Your task to perform on an android device: empty trash in the gmail app Image 0: 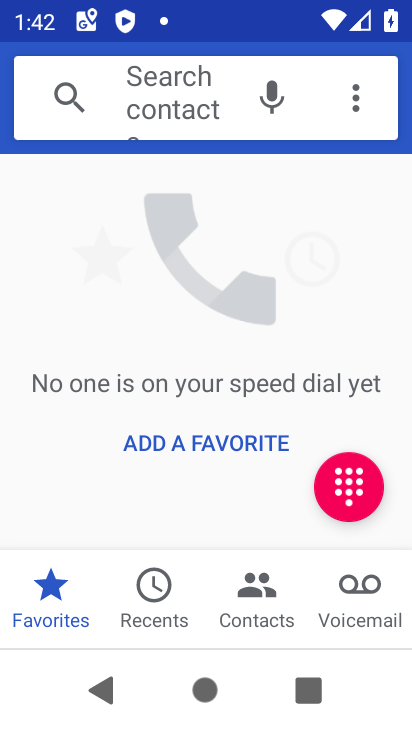
Step 0: press home button
Your task to perform on an android device: empty trash in the gmail app Image 1: 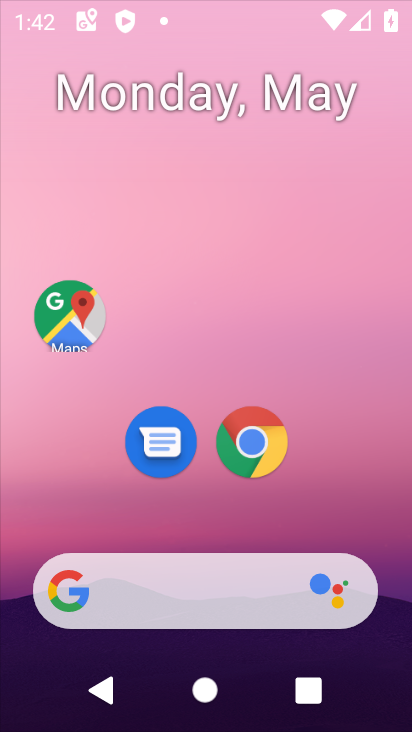
Step 1: press home button
Your task to perform on an android device: empty trash in the gmail app Image 2: 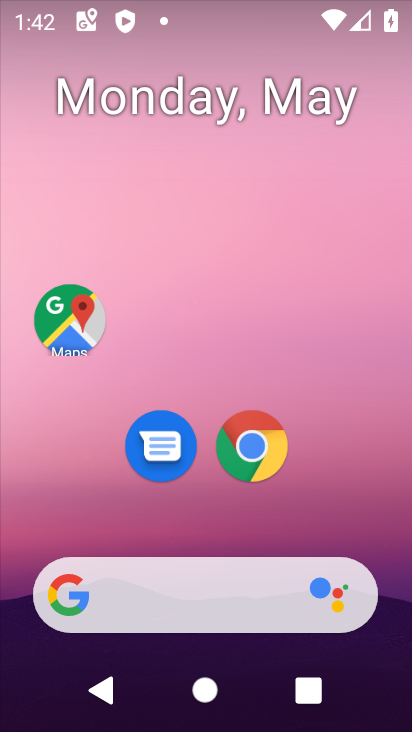
Step 2: drag from (217, 599) to (239, 209)
Your task to perform on an android device: empty trash in the gmail app Image 3: 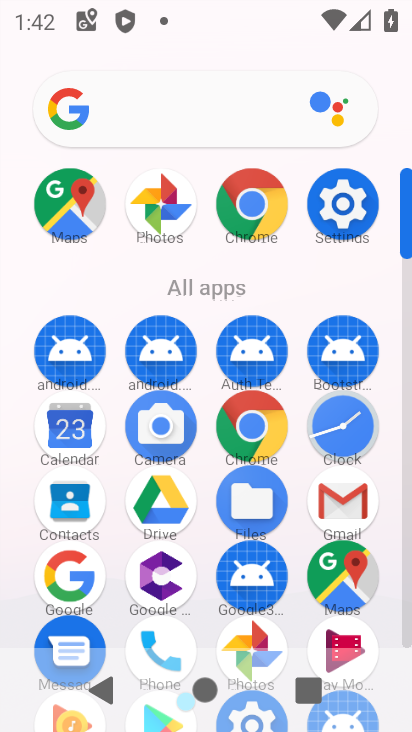
Step 3: click (318, 505)
Your task to perform on an android device: empty trash in the gmail app Image 4: 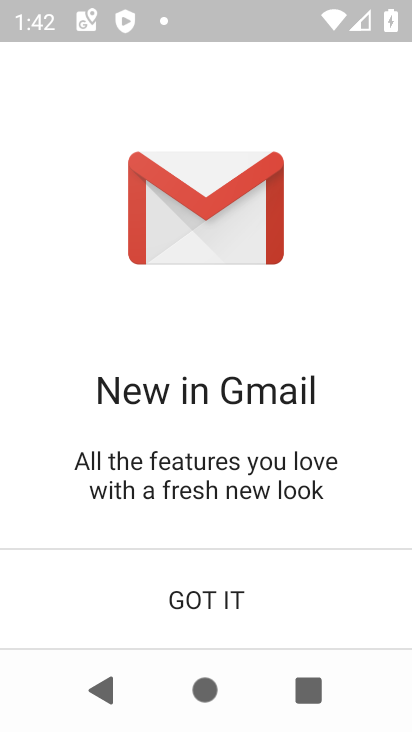
Step 4: click (220, 581)
Your task to perform on an android device: empty trash in the gmail app Image 5: 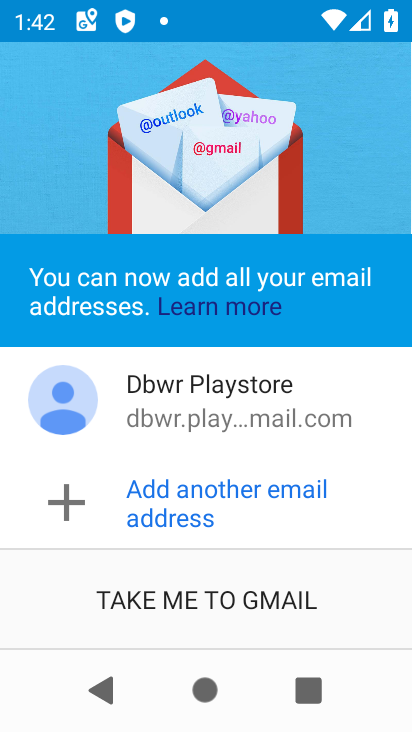
Step 5: click (232, 586)
Your task to perform on an android device: empty trash in the gmail app Image 6: 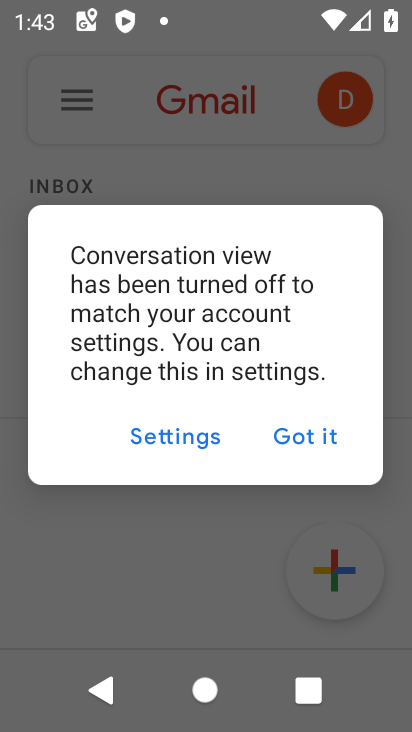
Step 6: click (310, 432)
Your task to perform on an android device: empty trash in the gmail app Image 7: 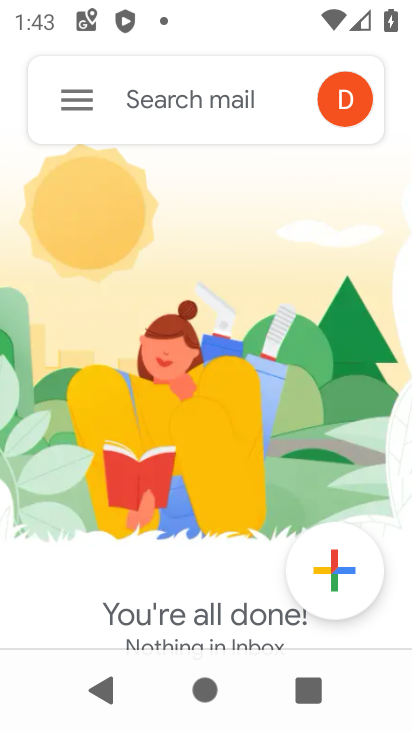
Step 7: click (80, 115)
Your task to perform on an android device: empty trash in the gmail app Image 8: 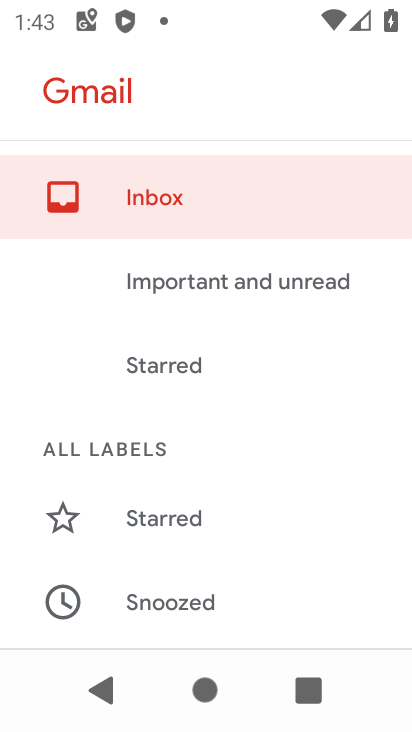
Step 8: drag from (199, 598) to (187, 106)
Your task to perform on an android device: empty trash in the gmail app Image 9: 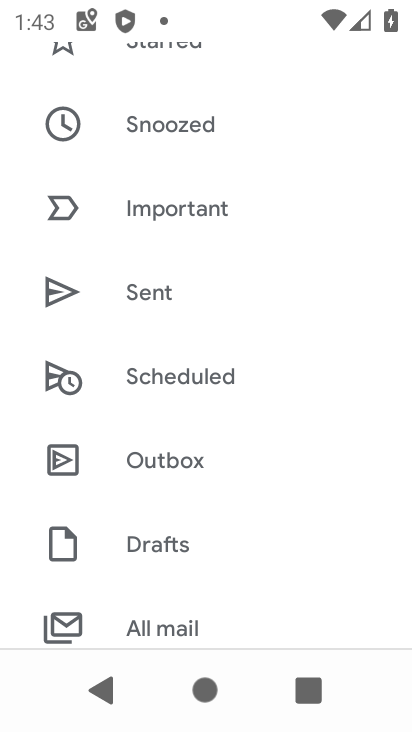
Step 9: drag from (191, 521) to (153, 161)
Your task to perform on an android device: empty trash in the gmail app Image 10: 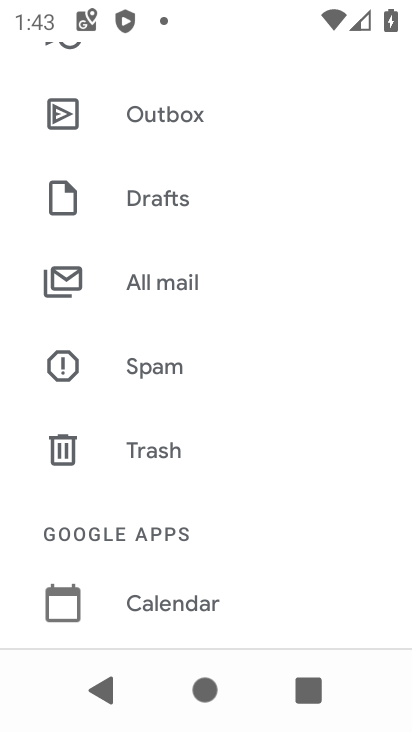
Step 10: click (143, 447)
Your task to perform on an android device: empty trash in the gmail app Image 11: 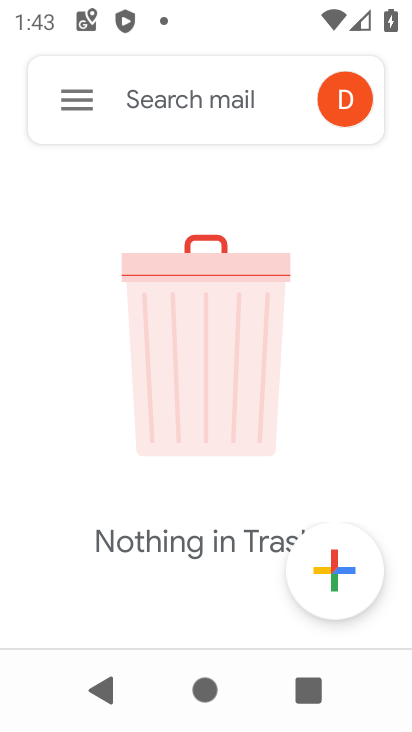
Step 11: task complete